Your task to perform on an android device: Show me productivity apps on the Play Store Image 0: 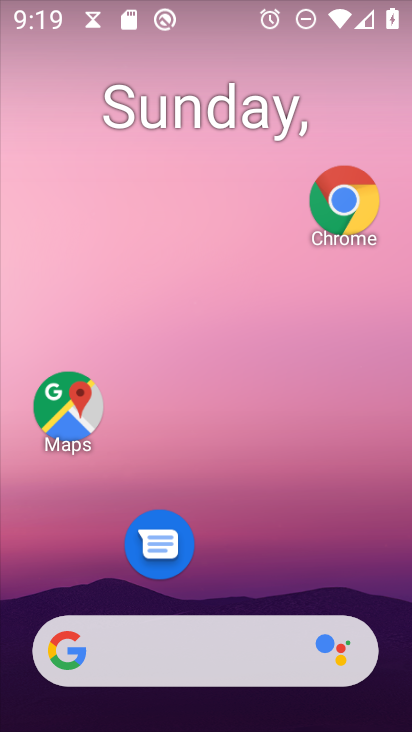
Step 0: drag from (282, 564) to (287, 7)
Your task to perform on an android device: Show me productivity apps on the Play Store Image 1: 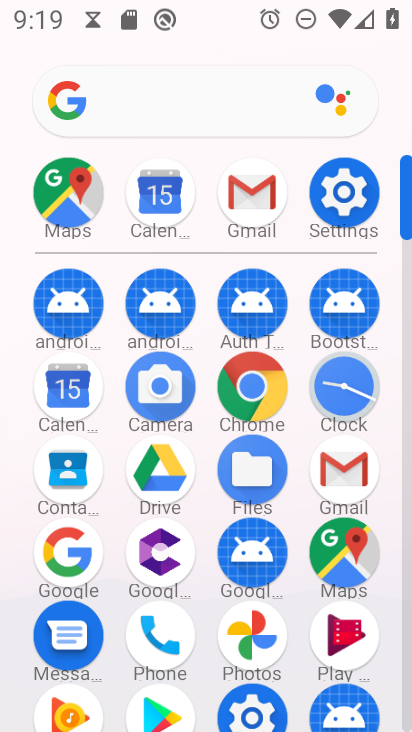
Step 1: click (135, 708)
Your task to perform on an android device: Show me productivity apps on the Play Store Image 2: 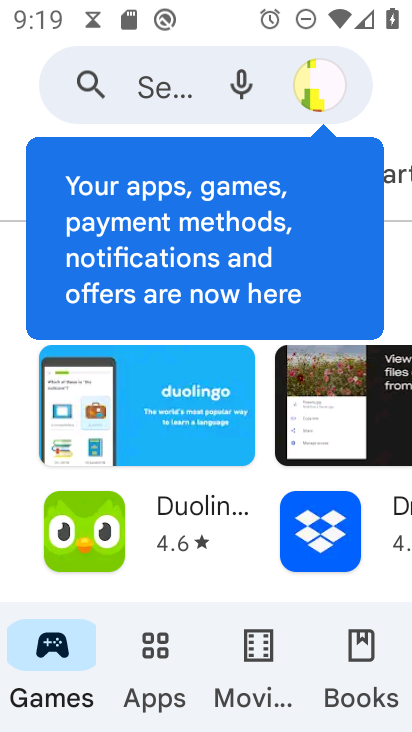
Step 2: click (148, 658)
Your task to perform on an android device: Show me productivity apps on the Play Store Image 3: 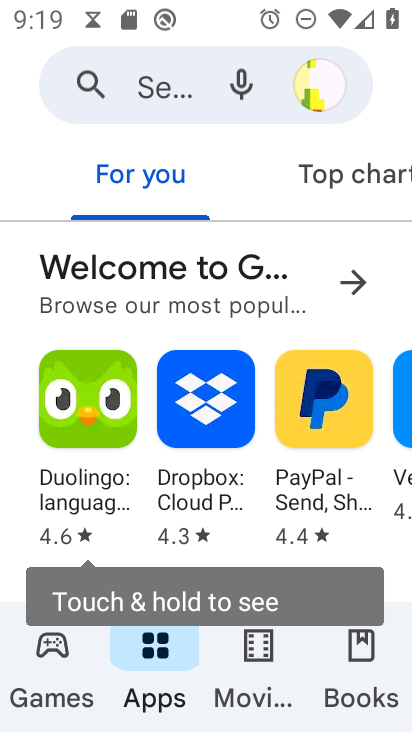
Step 3: drag from (403, 189) to (116, 233)
Your task to perform on an android device: Show me productivity apps on the Play Store Image 4: 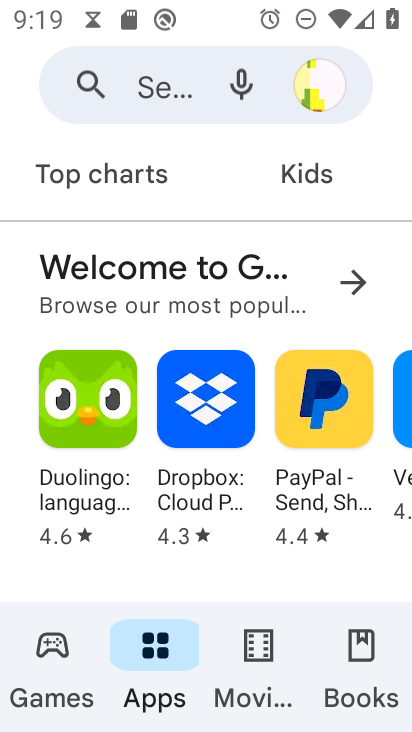
Step 4: drag from (172, 183) to (4, 187)
Your task to perform on an android device: Show me productivity apps on the Play Store Image 5: 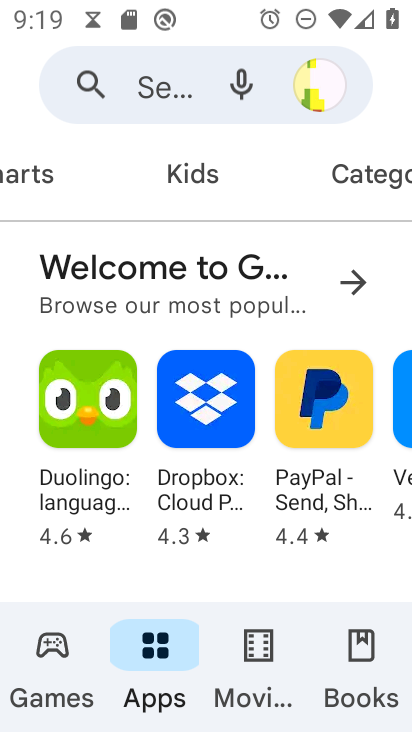
Step 5: click (343, 186)
Your task to perform on an android device: Show me productivity apps on the Play Store Image 6: 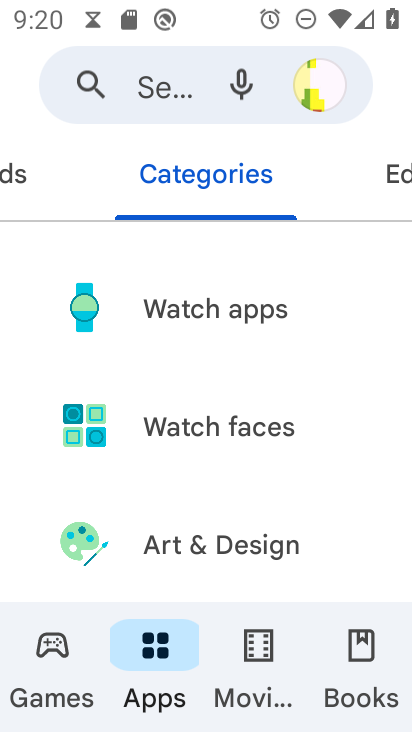
Step 6: drag from (225, 387) to (230, 252)
Your task to perform on an android device: Show me productivity apps on the Play Store Image 7: 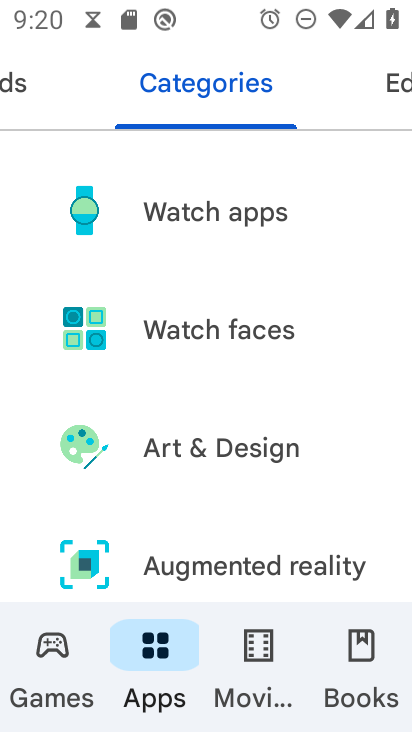
Step 7: drag from (218, 550) to (232, 159)
Your task to perform on an android device: Show me productivity apps on the Play Store Image 8: 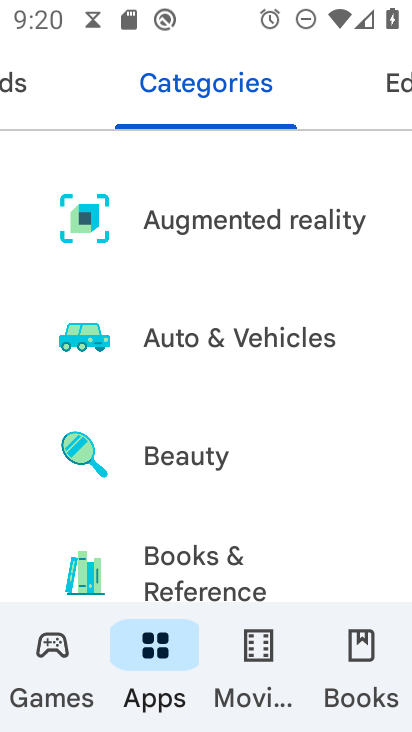
Step 8: drag from (216, 533) to (207, 170)
Your task to perform on an android device: Show me productivity apps on the Play Store Image 9: 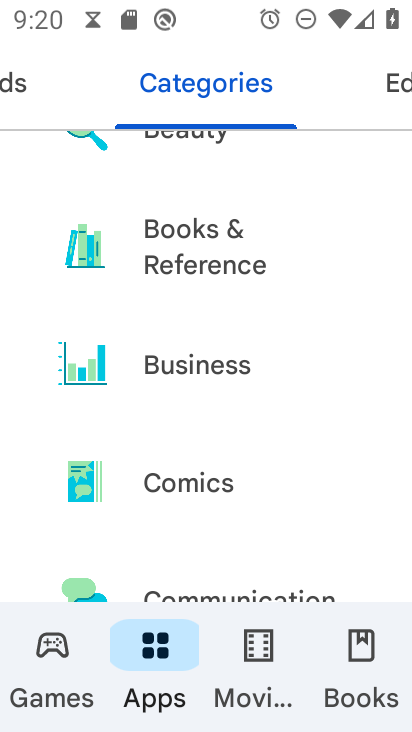
Step 9: drag from (192, 336) to (204, 261)
Your task to perform on an android device: Show me productivity apps on the Play Store Image 10: 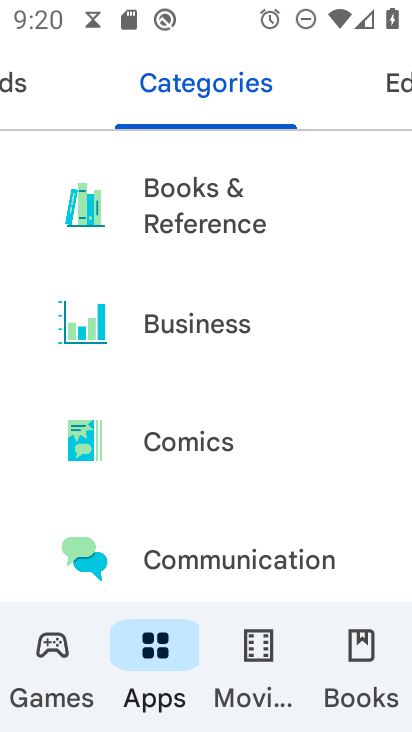
Step 10: drag from (300, 575) to (315, 303)
Your task to perform on an android device: Show me productivity apps on the Play Store Image 11: 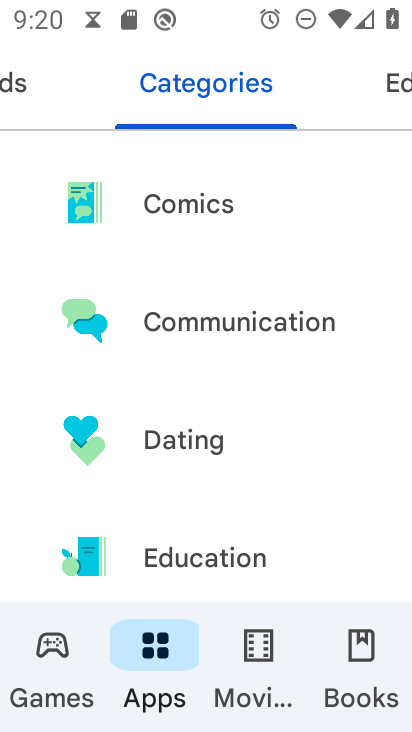
Step 11: drag from (230, 578) to (282, 249)
Your task to perform on an android device: Show me productivity apps on the Play Store Image 12: 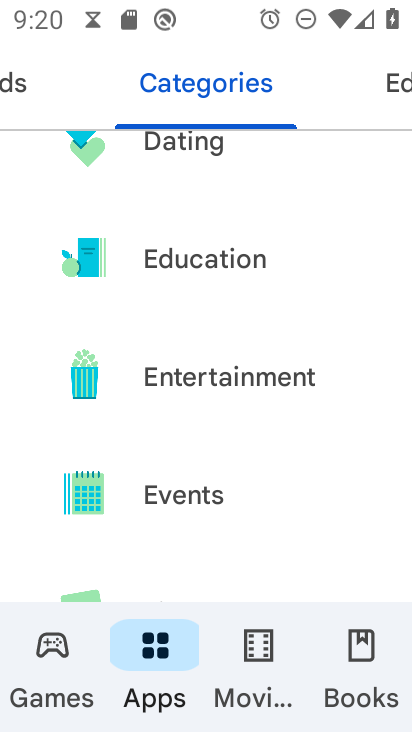
Step 12: drag from (226, 551) to (252, 350)
Your task to perform on an android device: Show me productivity apps on the Play Store Image 13: 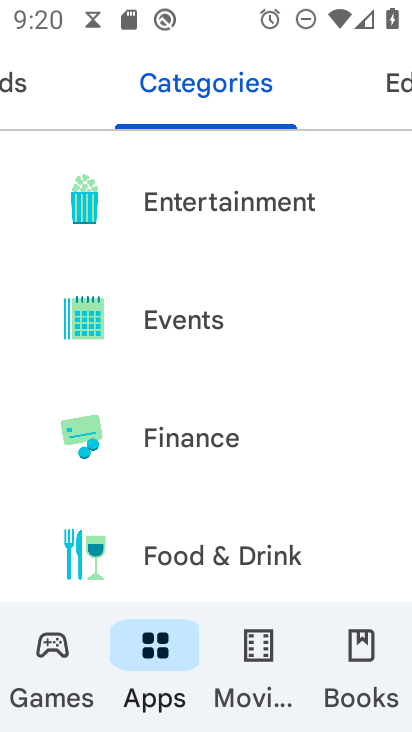
Step 13: drag from (232, 488) to (251, 359)
Your task to perform on an android device: Show me productivity apps on the Play Store Image 14: 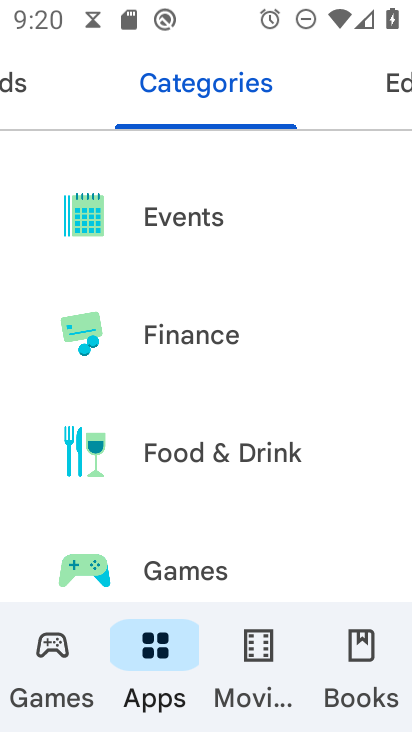
Step 14: drag from (212, 537) to (267, 259)
Your task to perform on an android device: Show me productivity apps on the Play Store Image 15: 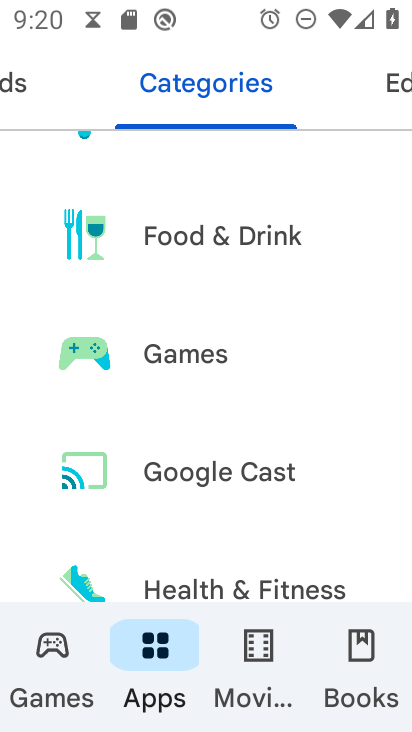
Step 15: drag from (269, 530) to (284, 204)
Your task to perform on an android device: Show me productivity apps on the Play Store Image 16: 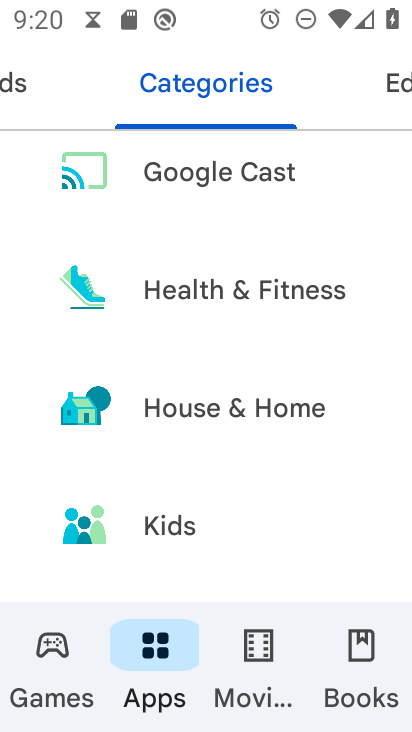
Step 16: drag from (224, 558) to (229, 247)
Your task to perform on an android device: Show me productivity apps on the Play Store Image 17: 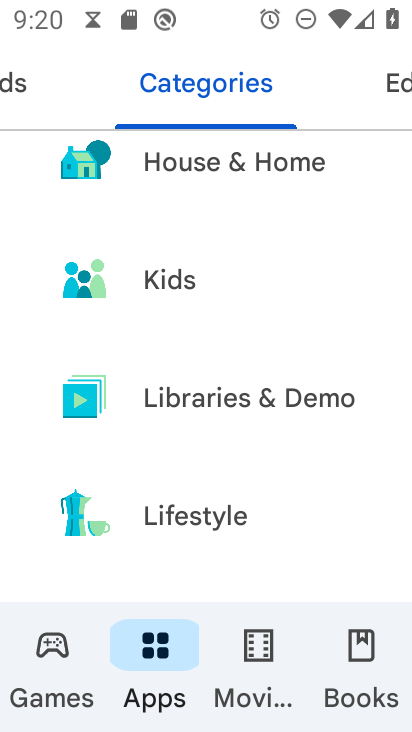
Step 17: drag from (210, 545) to (229, 243)
Your task to perform on an android device: Show me productivity apps on the Play Store Image 18: 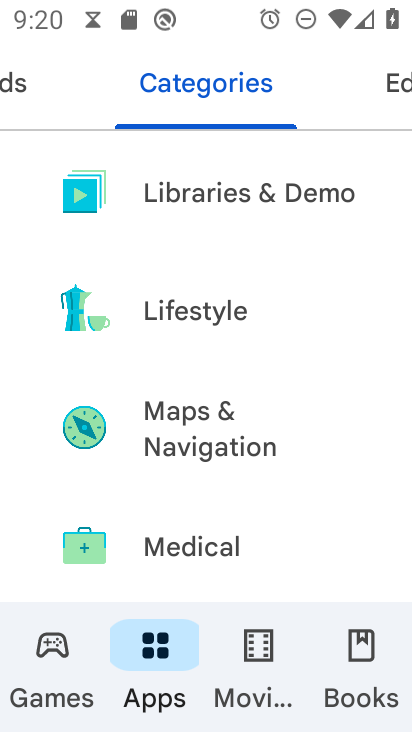
Step 18: drag from (149, 562) to (158, 362)
Your task to perform on an android device: Show me productivity apps on the Play Store Image 19: 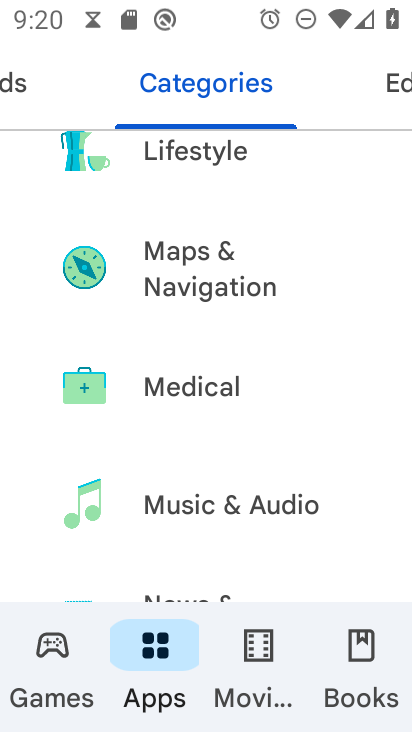
Step 19: drag from (117, 570) to (158, 410)
Your task to perform on an android device: Show me productivity apps on the Play Store Image 20: 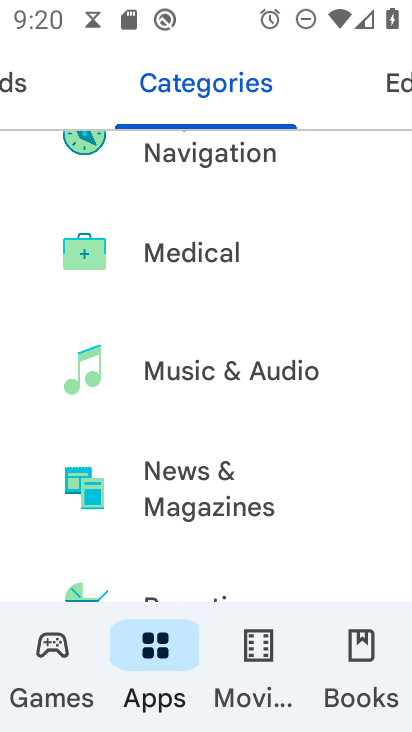
Step 20: drag from (132, 561) to (181, 284)
Your task to perform on an android device: Show me productivity apps on the Play Store Image 21: 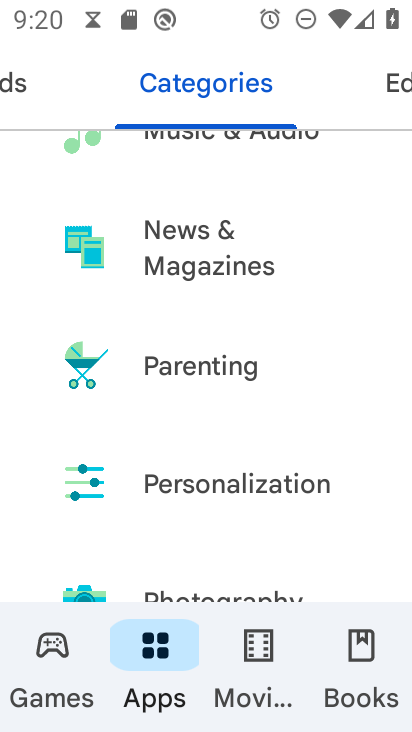
Step 21: drag from (177, 469) to (188, 308)
Your task to perform on an android device: Show me productivity apps on the Play Store Image 22: 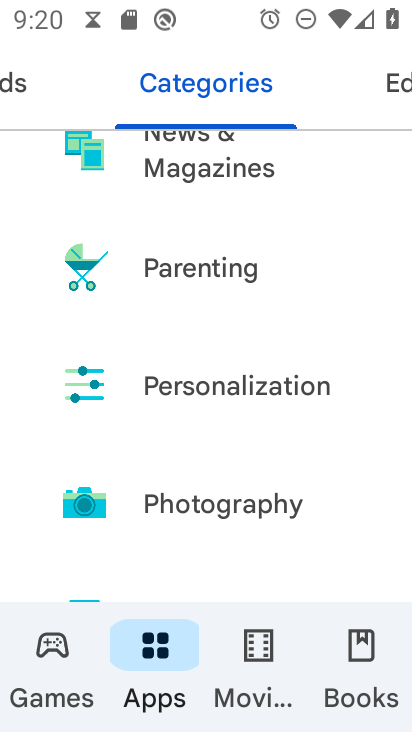
Step 22: drag from (163, 491) to (158, 261)
Your task to perform on an android device: Show me productivity apps on the Play Store Image 23: 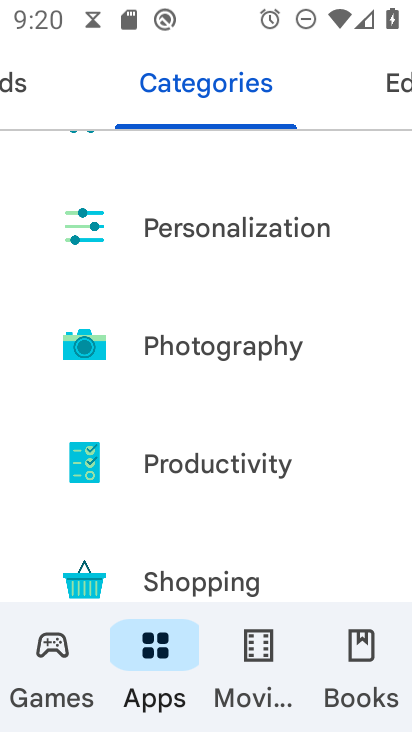
Step 23: click (126, 458)
Your task to perform on an android device: Show me productivity apps on the Play Store Image 24: 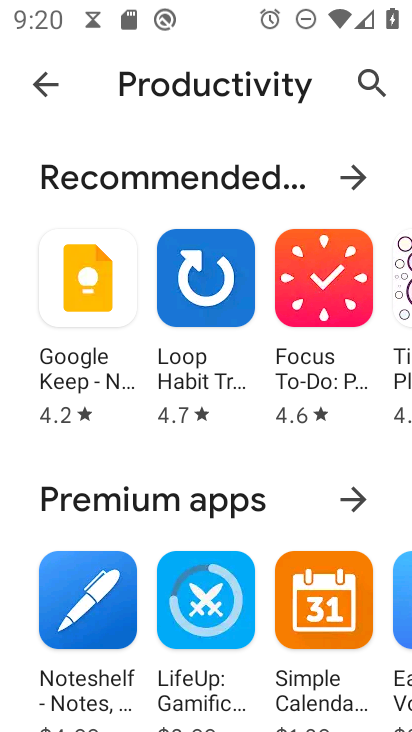
Step 24: task complete